Your task to perform on an android device: turn notification dots on Image 0: 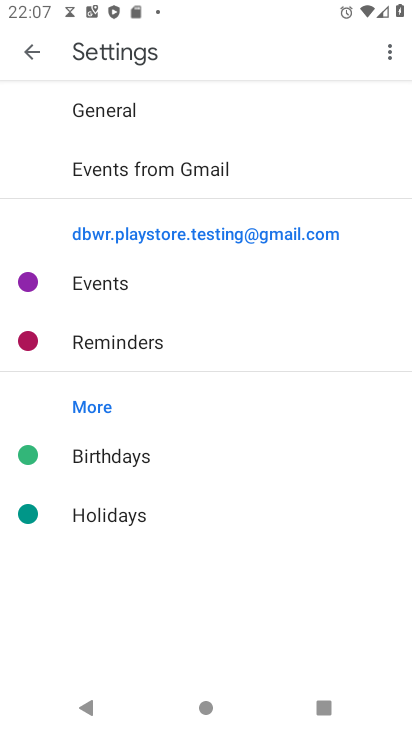
Step 0: press home button
Your task to perform on an android device: turn notification dots on Image 1: 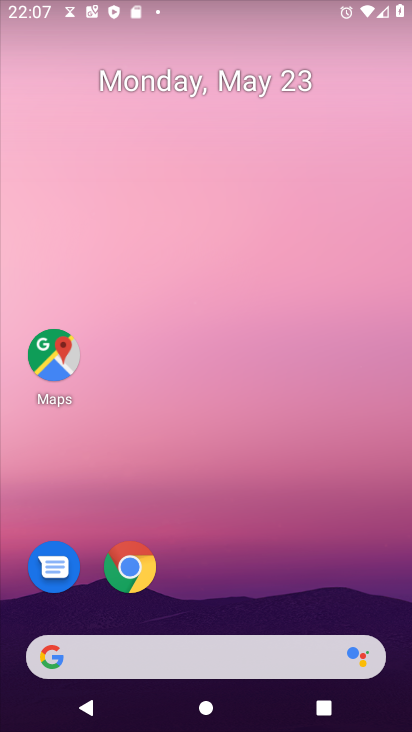
Step 1: drag from (190, 563) to (230, 226)
Your task to perform on an android device: turn notification dots on Image 2: 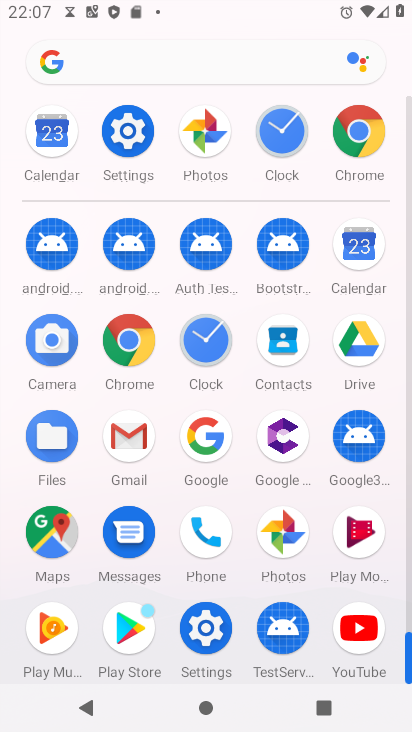
Step 2: click (212, 622)
Your task to perform on an android device: turn notification dots on Image 3: 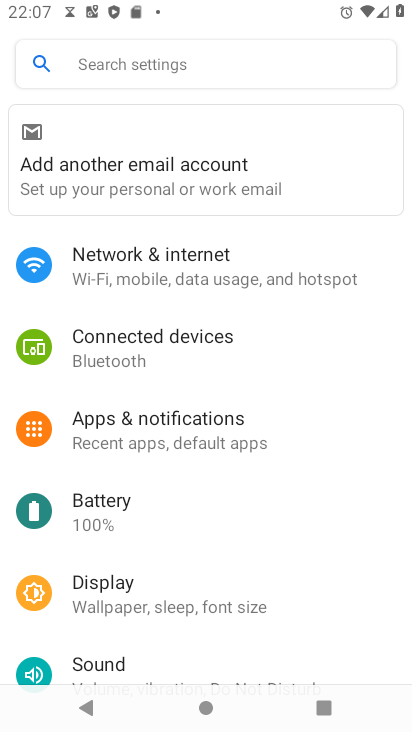
Step 3: drag from (236, 620) to (287, 729)
Your task to perform on an android device: turn notification dots on Image 4: 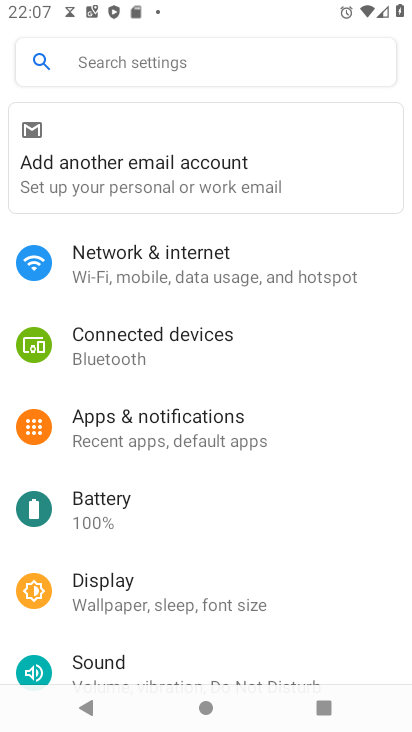
Step 4: click (201, 39)
Your task to perform on an android device: turn notification dots on Image 5: 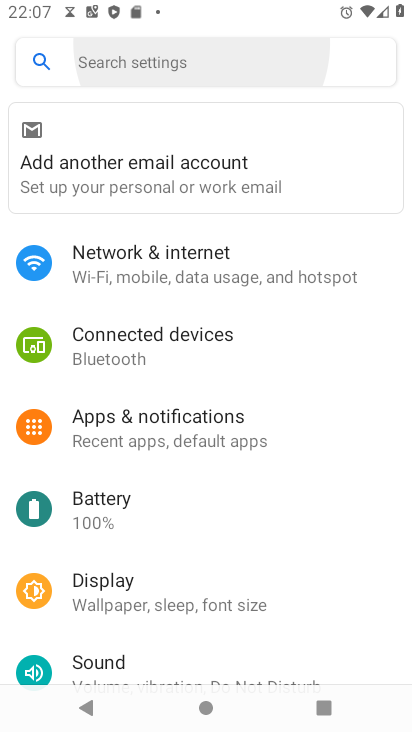
Step 5: click (189, 58)
Your task to perform on an android device: turn notification dots on Image 6: 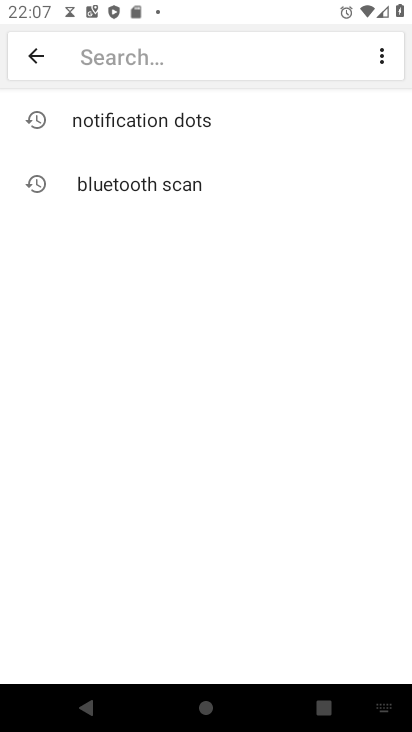
Step 6: type "notification dots"
Your task to perform on an android device: turn notification dots on Image 7: 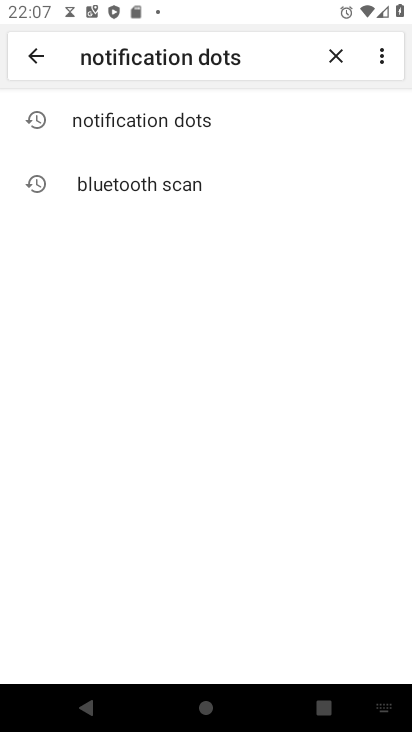
Step 7: click (140, 116)
Your task to perform on an android device: turn notification dots on Image 8: 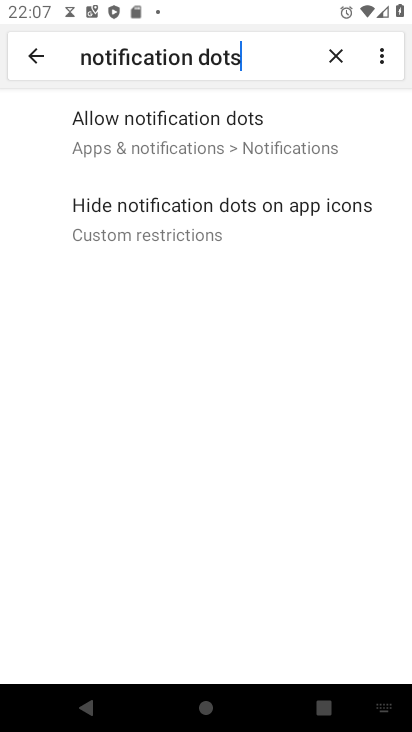
Step 8: click (140, 120)
Your task to perform on an android device: turn notification dots on Image 9: 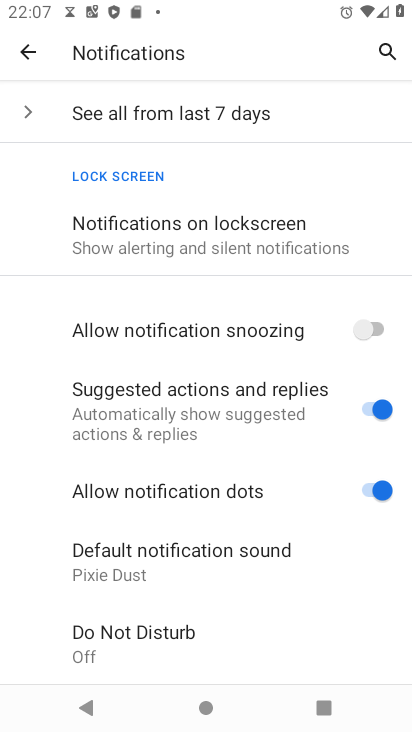
Step 9: task complete